Your task to perform on an android device: clear history in the chrome app Image 0: 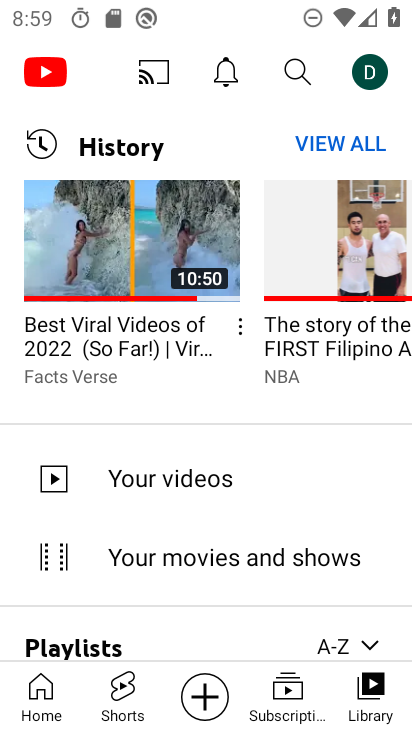
Step 0: press home button
Your task to perform on an android device: clear history in the chrome app Image 1: 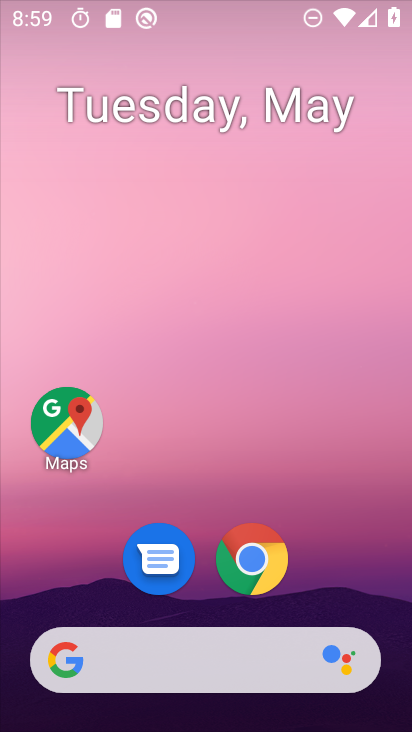
Step 1: drag from (389, 663) to (300, 86)
Your task to perform on an android device: clear history in the chrome app Image 2: 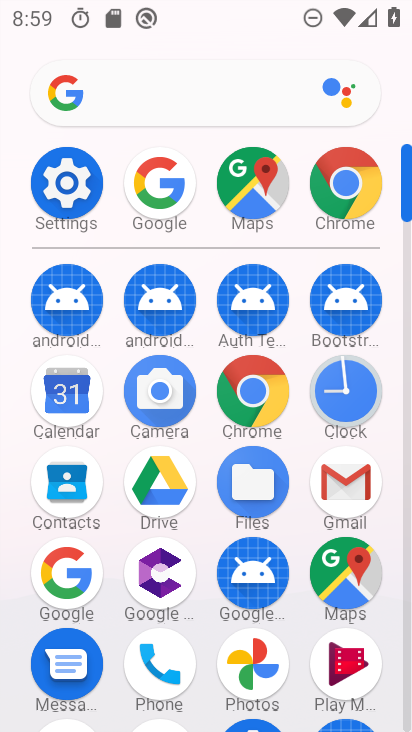
Step 2: click (362, 188)
Your task to perform on an android device: clear history in the chrome app Image 3: 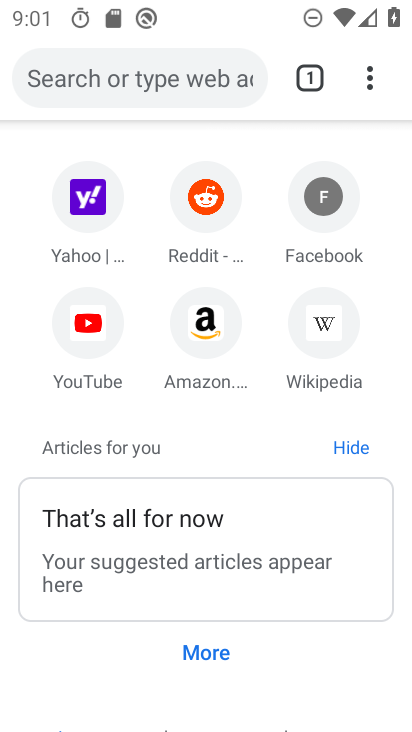
Step 3: click (367, 70)
Your task to perform on an android device: clear history in the chrome app Image 4: 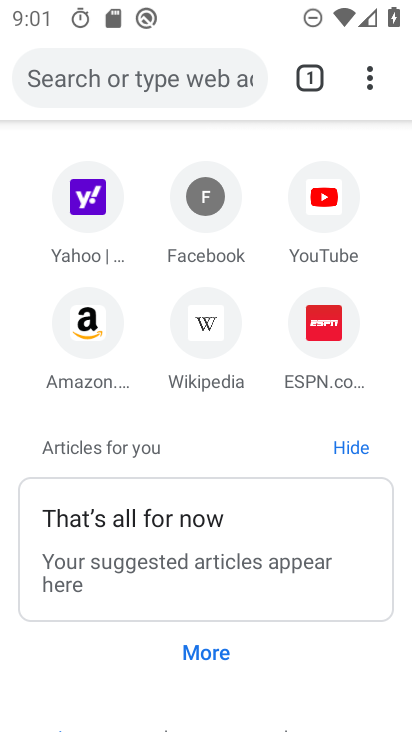
Step 4: click (367, 70)
Your task to perform on an android device: clear history in the chrome app Image 5: 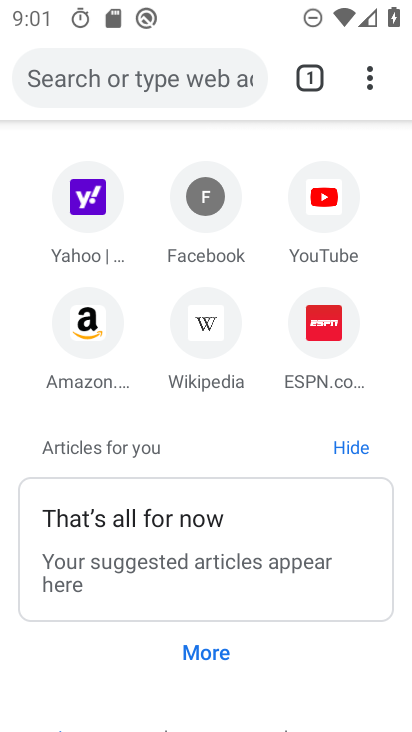
Step 5: click (367, 70)
Your task to perform on an android device: clear history in the chrome app Image 6: 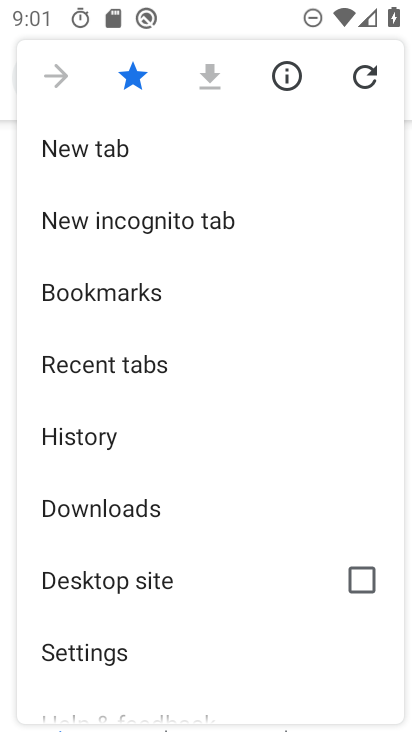
Step 6: click (142, 438)
Your task to perform on an android device: clear history in the chrome app Image 7: 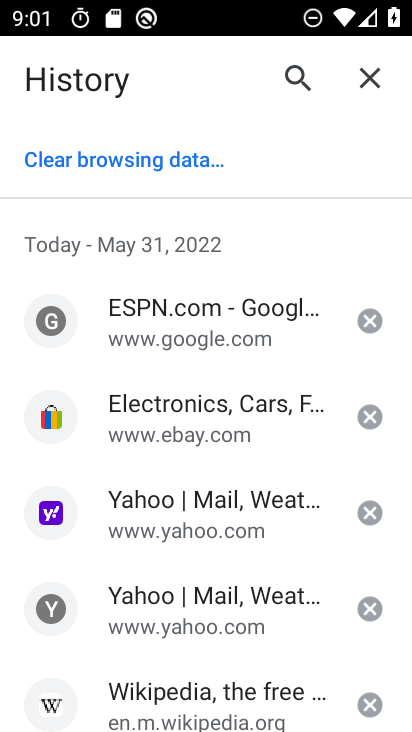
Step 7: click (182, 163)
Your task to perform on an android device: clear history in the chrome app Image 8: 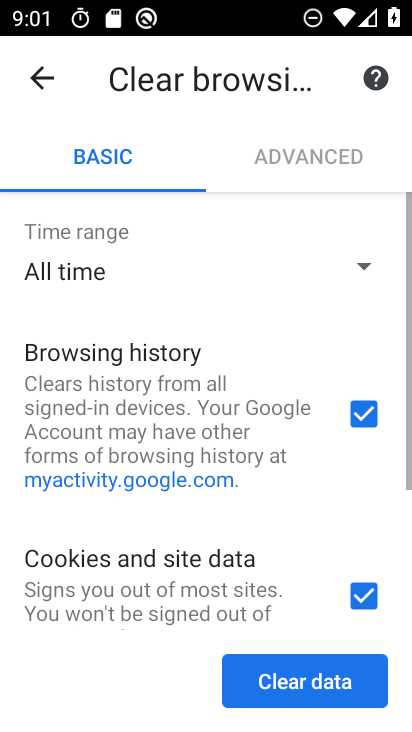
Step 8: click (315, 669)
Your task to perform on an android device: clear history in the chrome app Image 9: 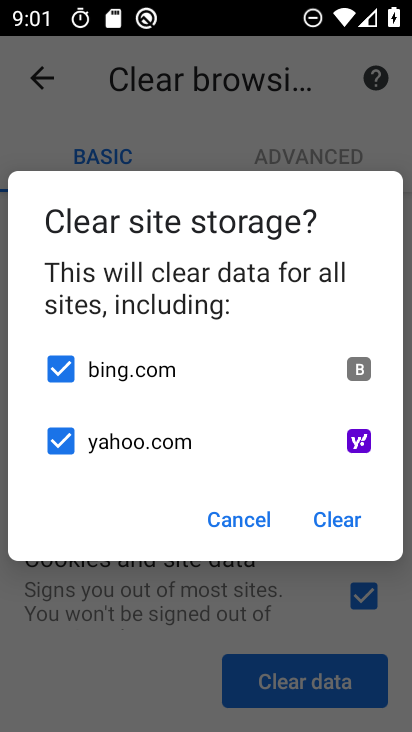
Step 9: click (341, 534)
Your task to perform on an android device: clear history in the chrome app Image 10: 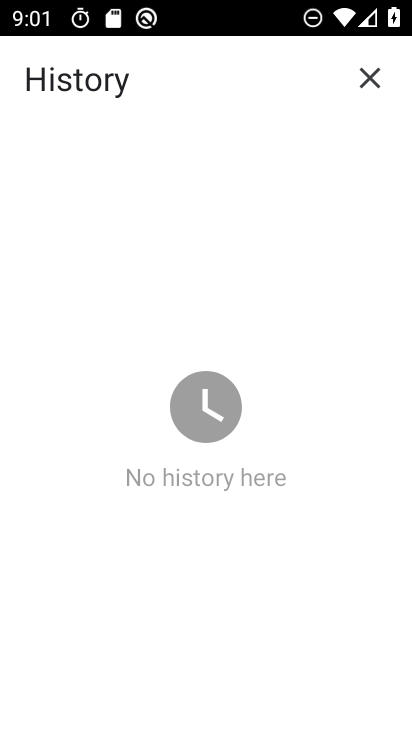
Step 10: task complete